Your task to perform on an android device: turn off improve location accuracy Image 0: 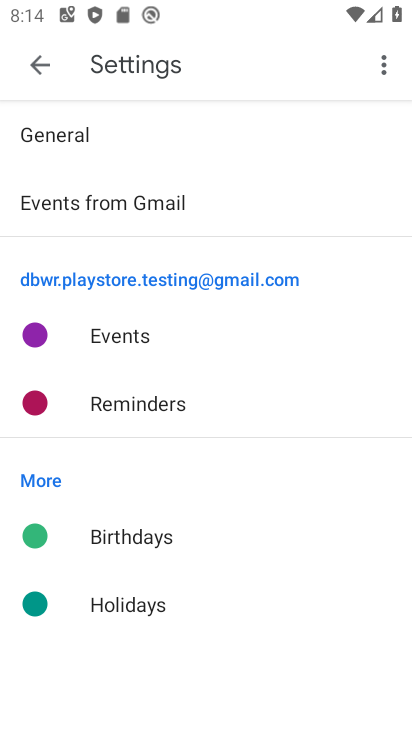
Step 0: press home button
Your task to perform on an android device: turn off improve location accuracy Image 1: 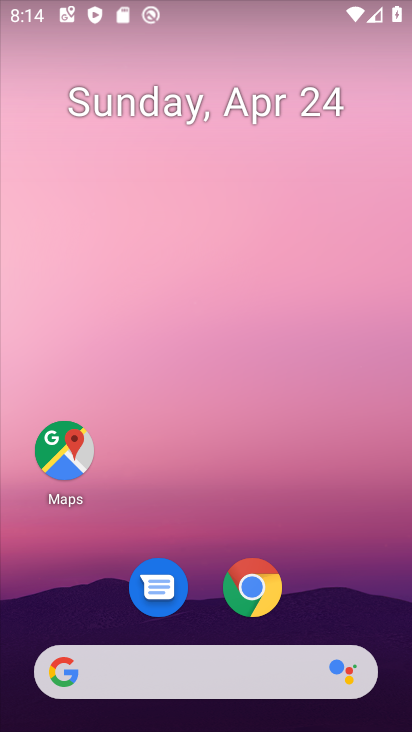
Step 1: drag from (339, 450) to (347, 178)
Your task to perform on an android device: turn off improve location accuracy Image 2: 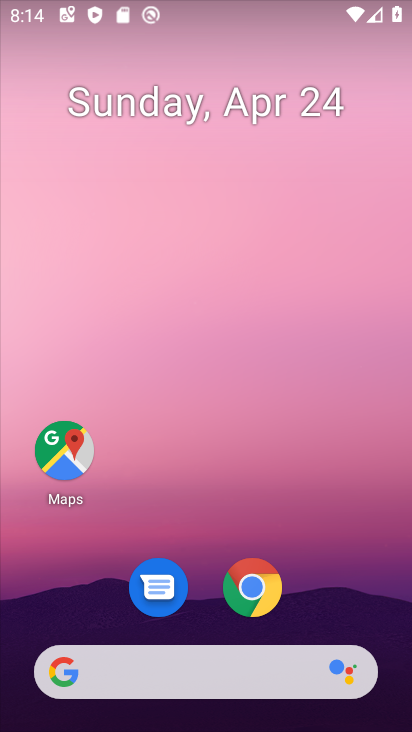
Step 2: drag from (350, 536) to (346, 196)
Your task to perform on an android device: turn off improve location accuracy Image 3: 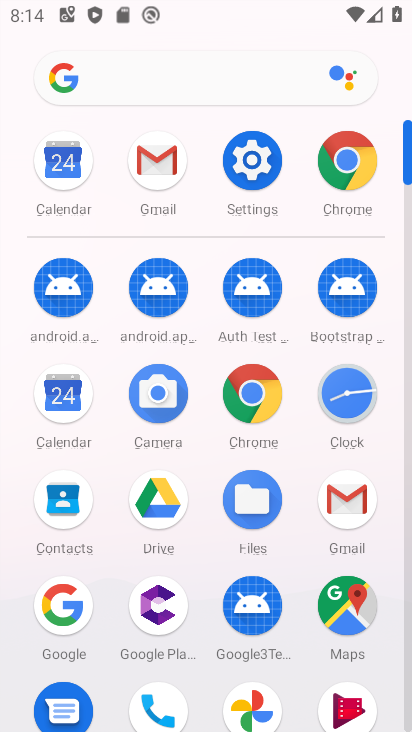
Step 3: click (249, 180)
Your task to perform on an android device: turn off improve location accuracy Image 4: 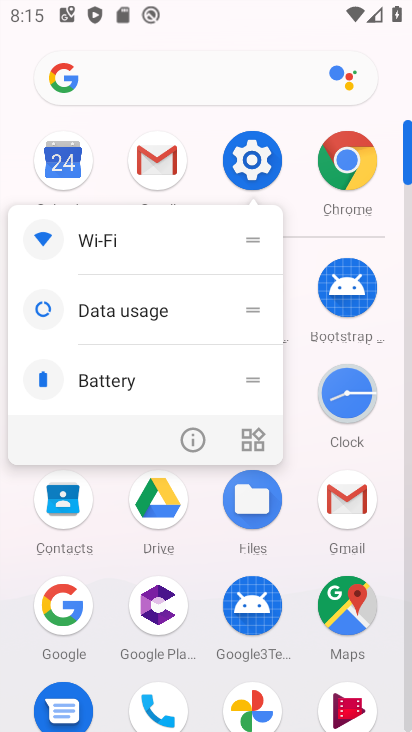
Step 4: click (252, 162)
Your task to perform on an android device: turn off improve location accuracy Image 5: 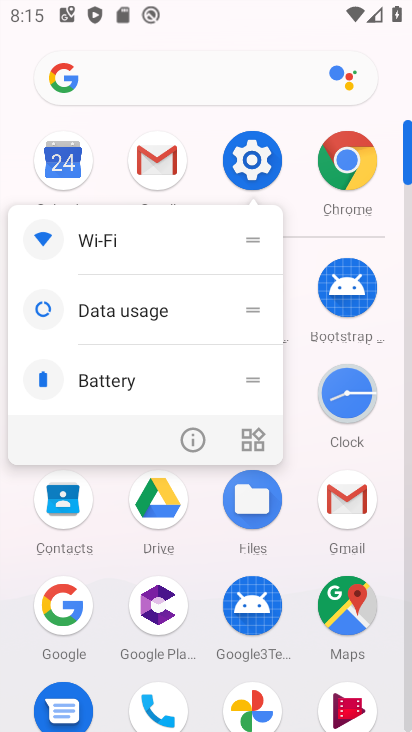
Step 5: click (252, 162)
Your task to perform on an android device: turn off improve location accuracy Image 6: 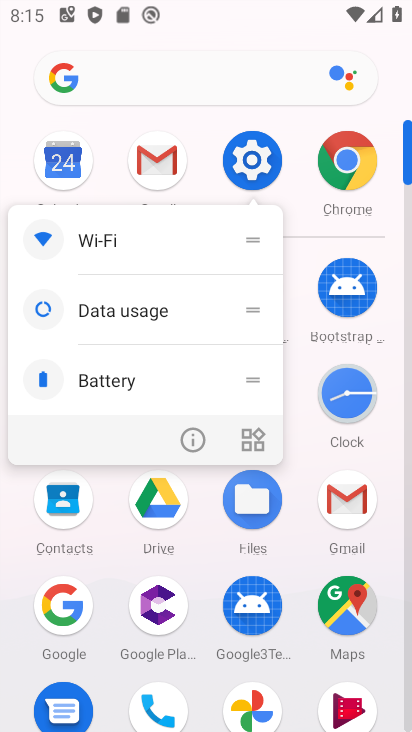
Step 6: drag from (295, 592) to (341, 190)
Your task to perform on an android device: turn off improve location accuracy Image 7: 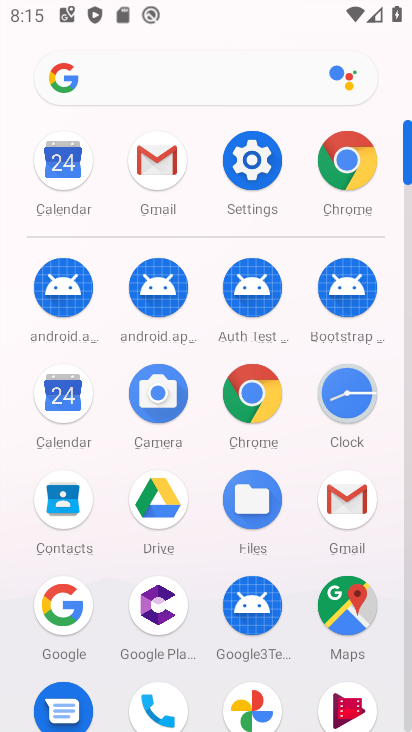
Step 7: drag from (301, 601) to (350, 271)
Your task to perform on an android device: turn off improve location accuracy Image 8: 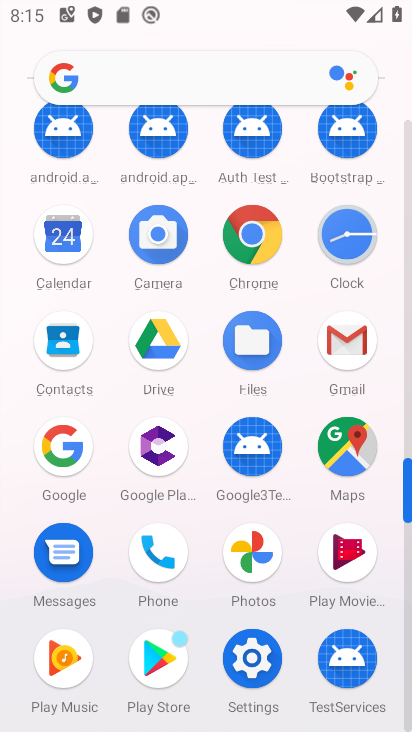
Step 8: click (259, 644)
Your task to perform on an android device: turn off improve location accuracy Image 9: 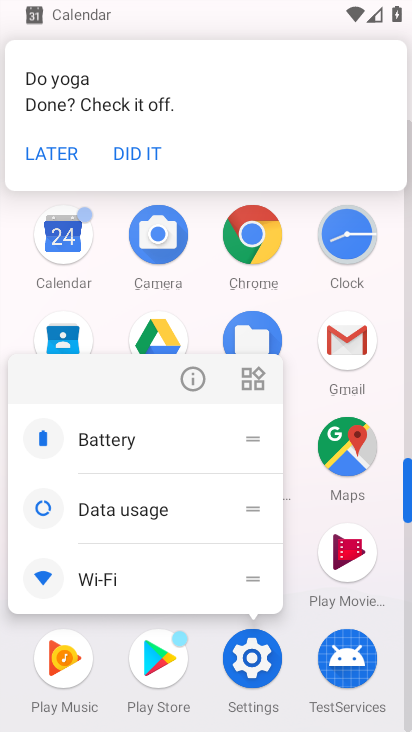
Step 9: click (245, 667)
Your task to perform on an android device: turn off improve location accuracy Image 10: 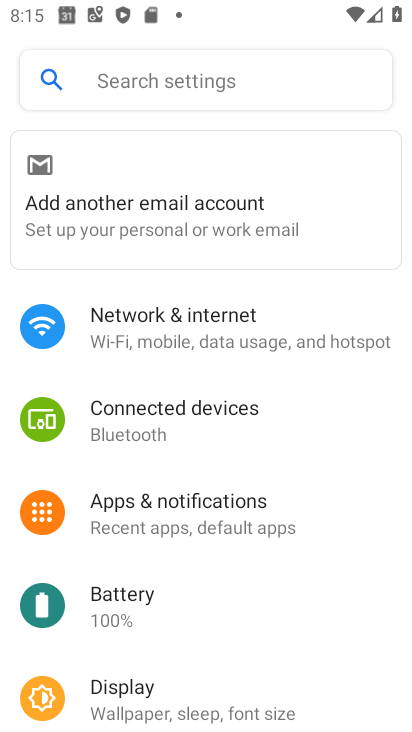
Step 10: drag from (278, 652) to (334, 306)
Your task to perform on an android device: turn off improve location accuracy Image 11: 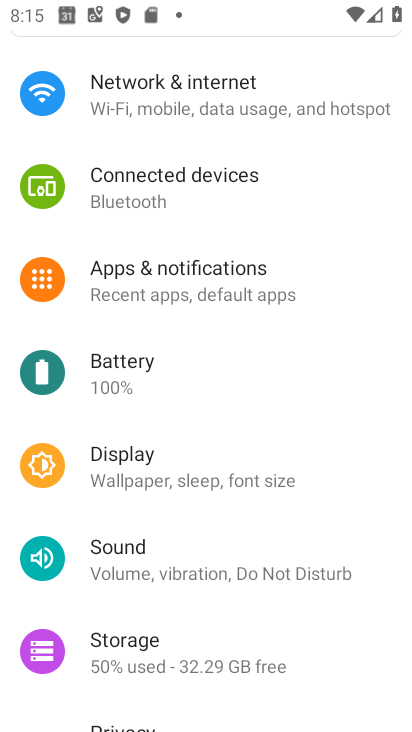
Step 11: drag from (320, 574) to (355, 250)
Your task to perform on an android device: turn off improve location accuracy Image 12: 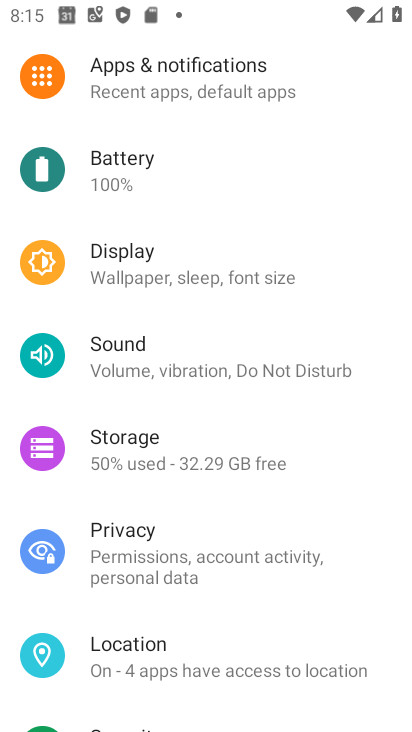
Step 12: click (199, 651)
Your task to perform on an android device: turn off improve location accuracy Image 13: 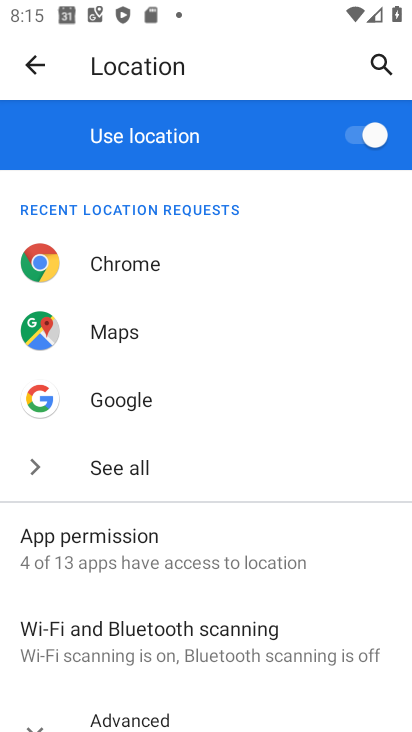
Step 13: drag from (271, 604) to (286, 362)
Your task to perform on an android device: turn off improve location accuracy Image 14: 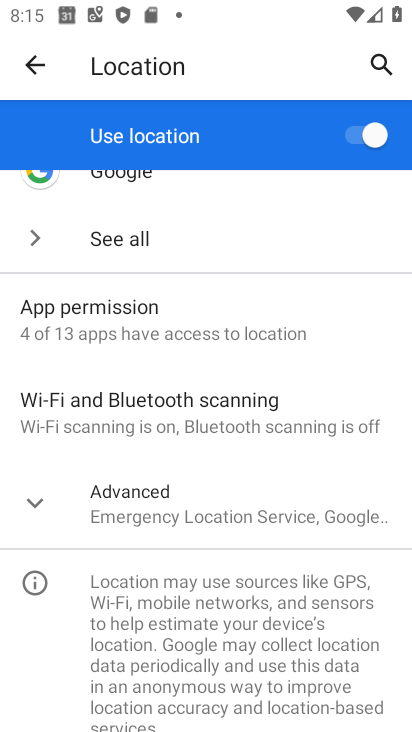
Step 14: click (263, 514)
Your task to perform on an android device: turn off improve location accuracy Image 15: 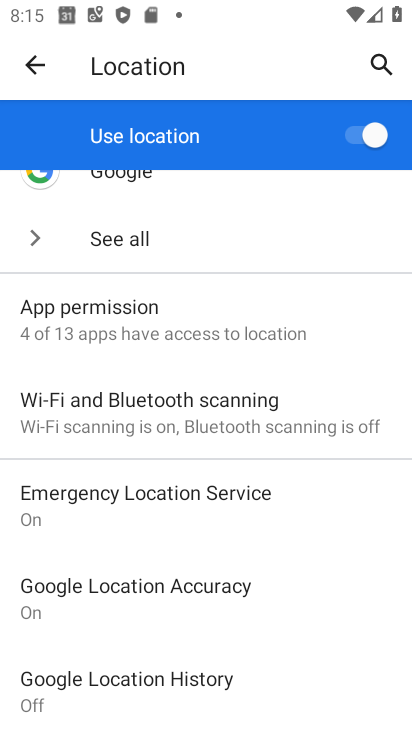
Step 15: drag from (272, 621) to (329, 449)
Your task to perform on an android device: turn off improve location accuracy Image 16: 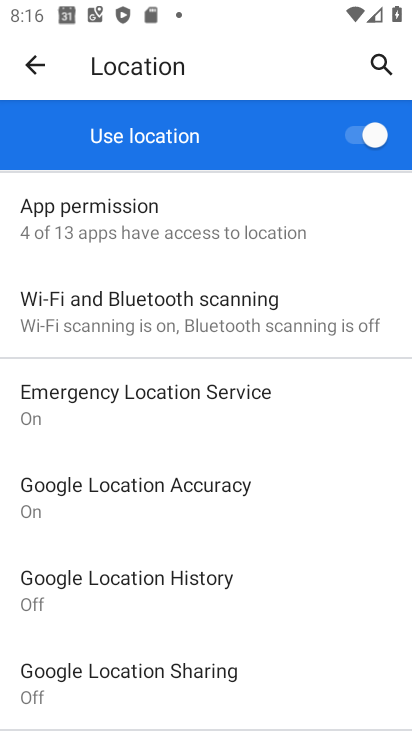
Step 16: click (161, 489)
Your task to perform on an android device: turn off improve location accuracy Image 17: 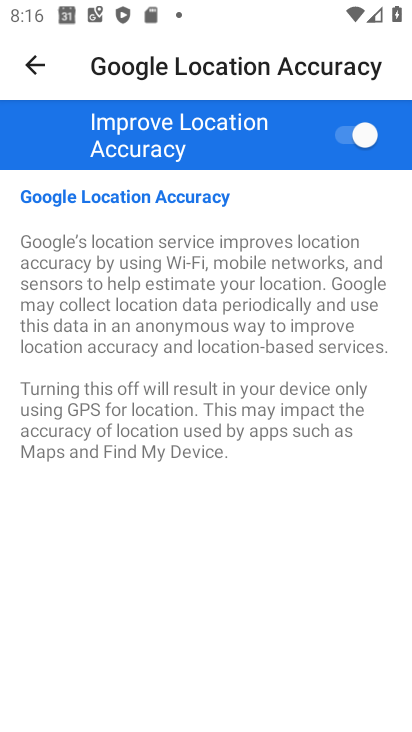
Step 17: click (338, 142)
Your task to perform on an android device: turn off improve location accuracy Image 18: 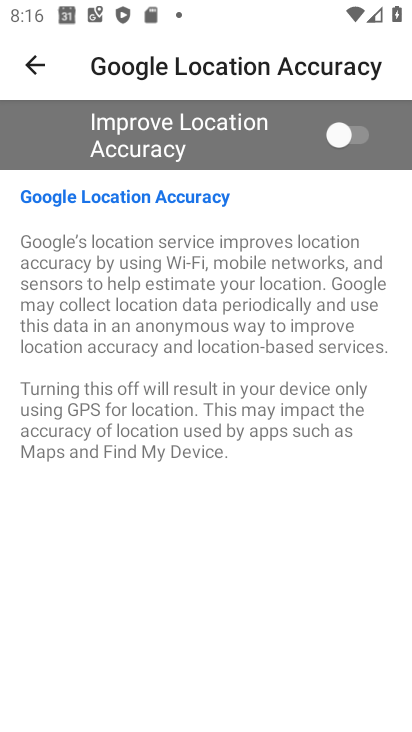
Step 18: task complete